Your task to perform on an android device: Open Google Chrome Image 0: 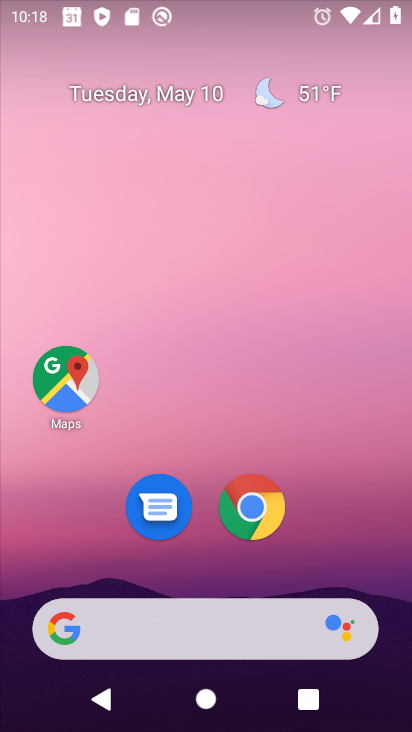
Step 0: click (242, 525)
Your task to perform on an android device: Open Google Chrome Image 1: 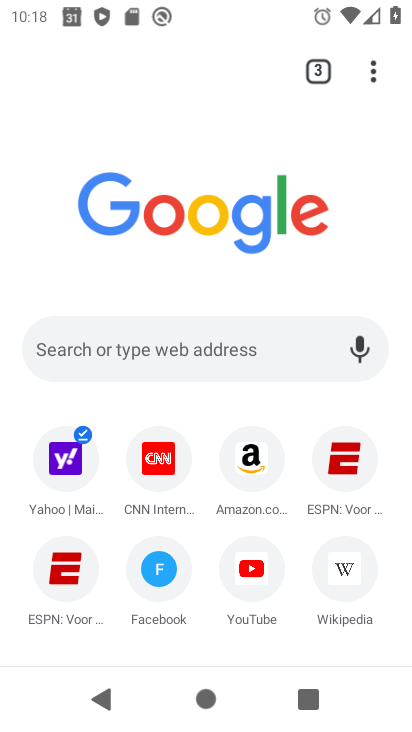
Step 1: task complete